Your task to perform on an android device: change the clock display to digital Image 0: 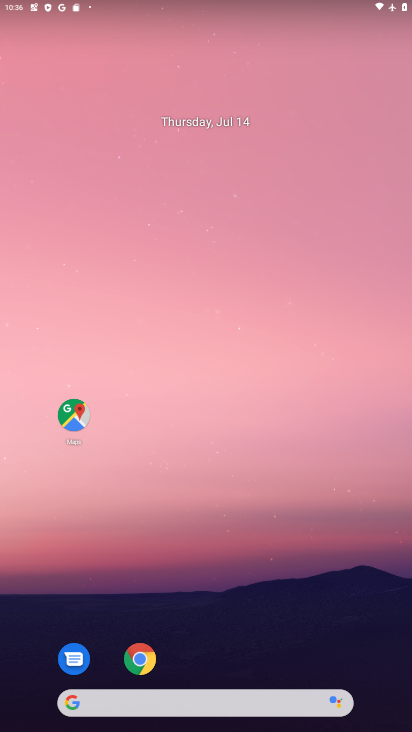
Step 0: drag from (264, 649) to (213, 153)
Your task to perform on an android device: change the clock display to digital Image 1: 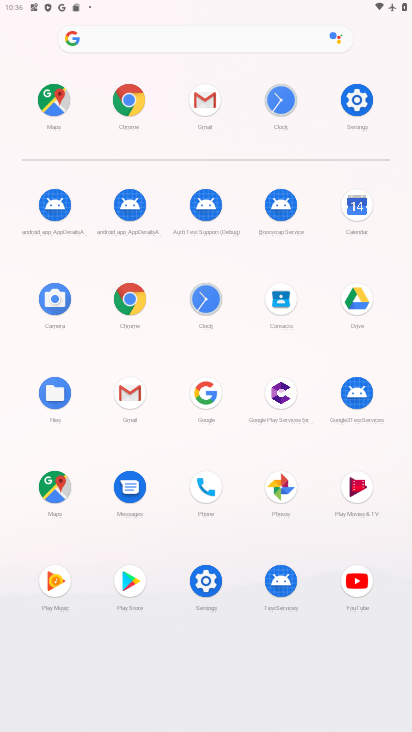
Step 1: click (206, 302)
Your task to perform on an android device: change the clock display to digital Image 2: 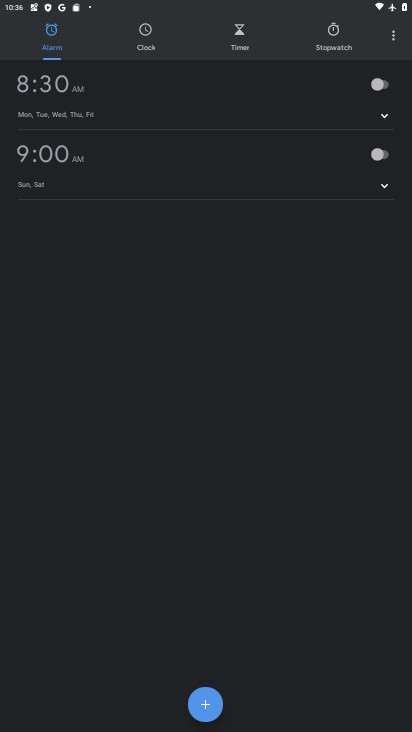
Step 2: click (394, 36)
Your task to perform on an android device: change the clock display to digital Image 3: 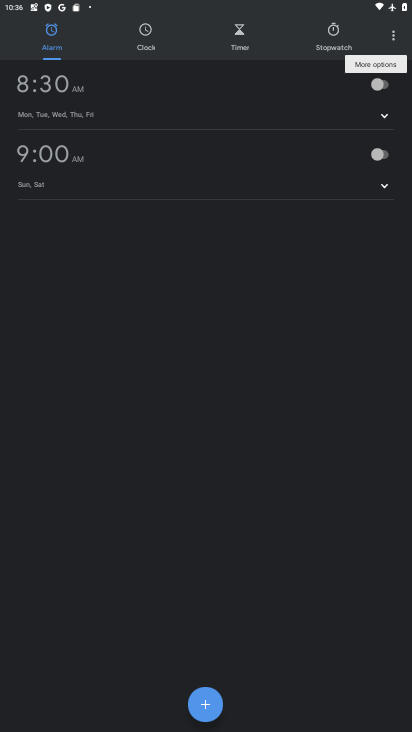
Step 3: click (394, 36)
Your task to perform on an android device: change the clock display to digital Image 4: 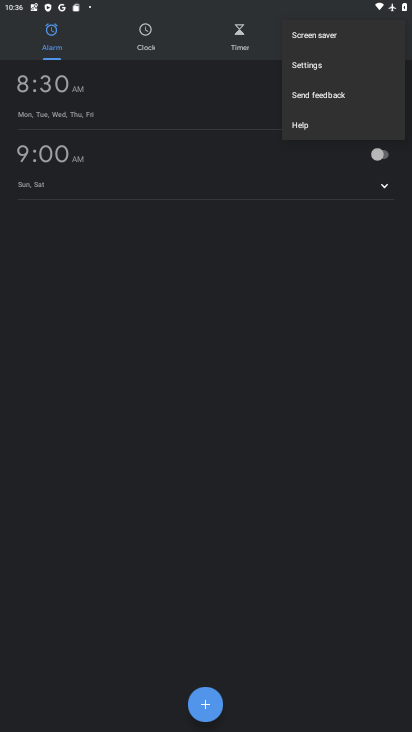
Step 4: click (340, 69)
Your task to perform on an android device: change the clock display to digital Image 5: 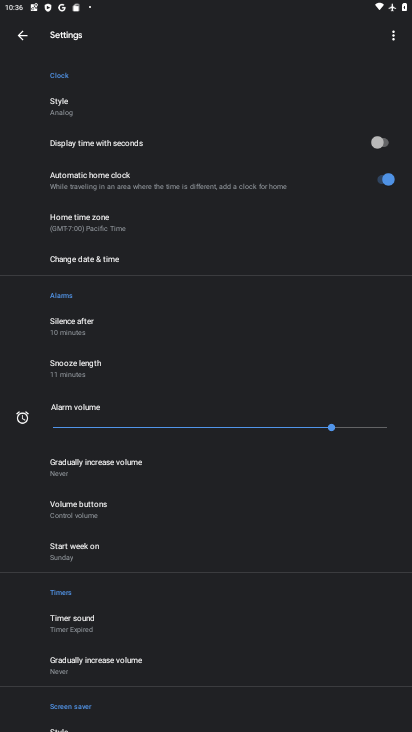
Step 5: task complete